Your task to perform on an android device: Go to Yahoo.com Image 0: 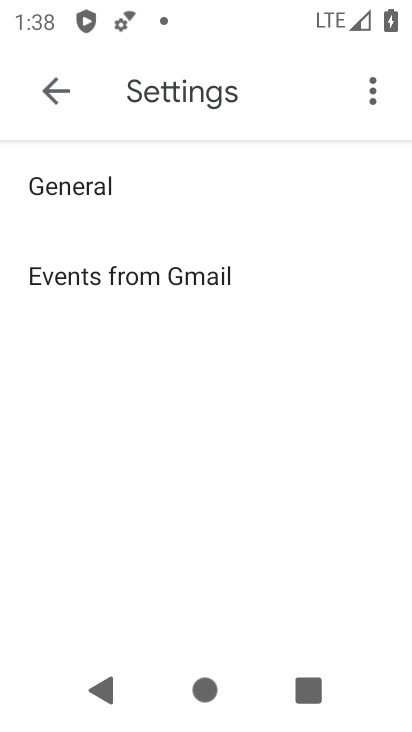
Step 0: drag from (275, 601) to (343, 70)
Your task to perform on an android device: Go to Yahoo.com Image 1: 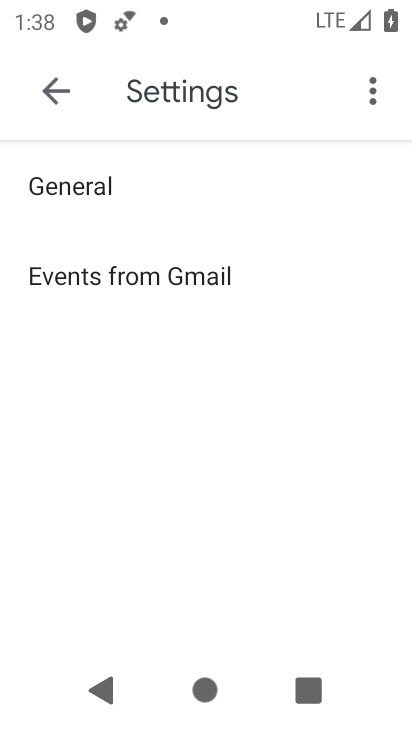
Step 1: press home button
Your task to perform on an android device: Go to Yahoo.com Image 2: 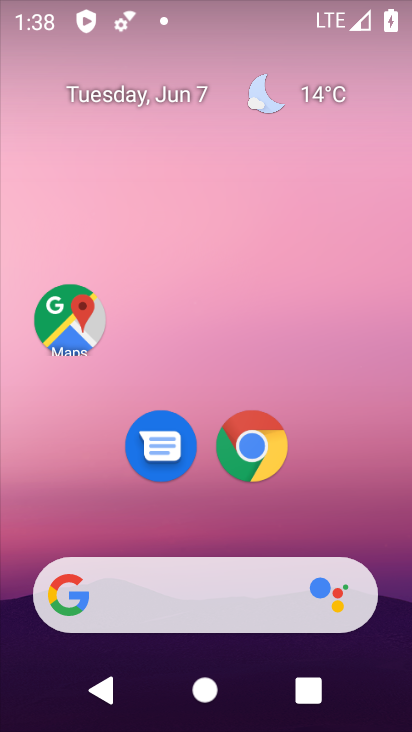
Step 2: click (244, 434)
Your task to perform on an android device: Go to Yahoo.com Image 3: 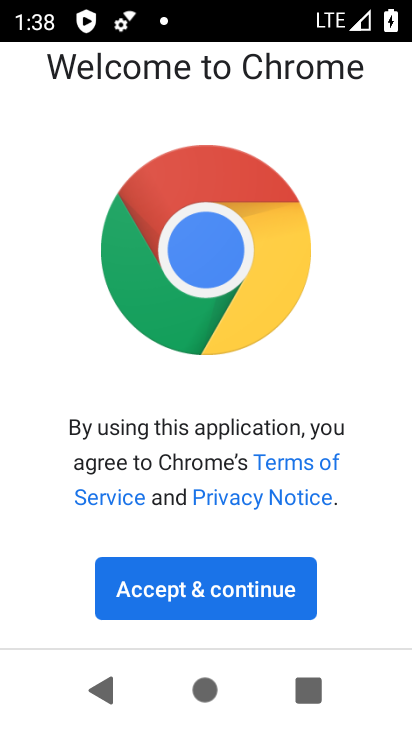
Step 3: click (224, 586)
Your task to perform on an android device: Go to Yahoo.com Image 4: 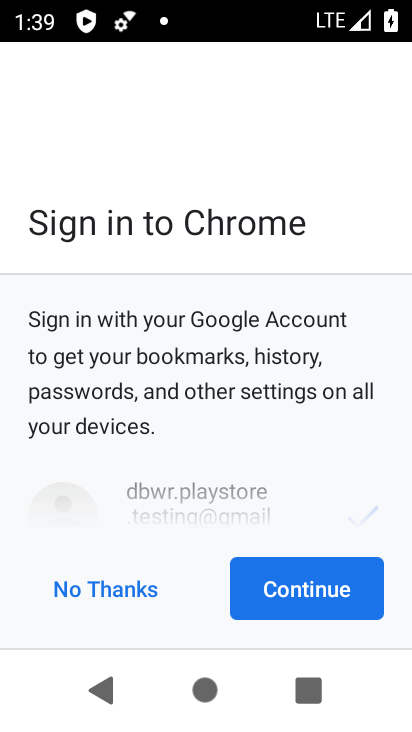
Step 4: click (318, 608)
Your task to perform on an android device: Go to Yahoo.com Image 5: 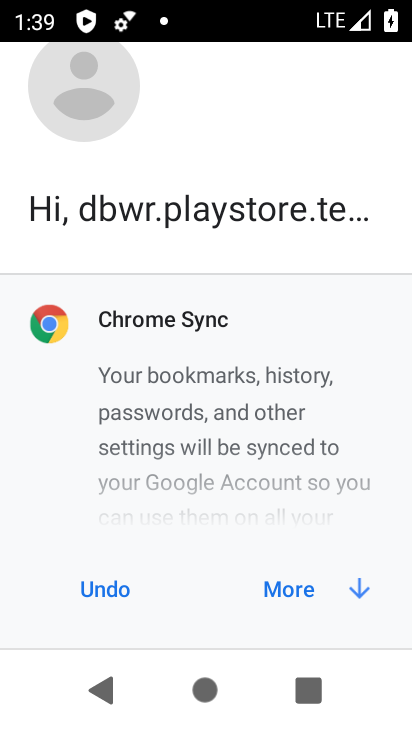
Step 5: click (350, 592)
Your task to perform on an android device: Go to Yahoo.com Image 6: 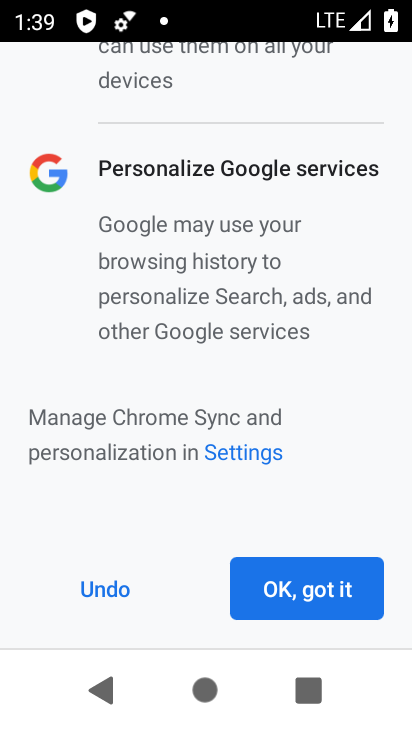
Step 6: click (350, 592)
Your task to perform on an android device: Go to Yahoo.com Image 7: 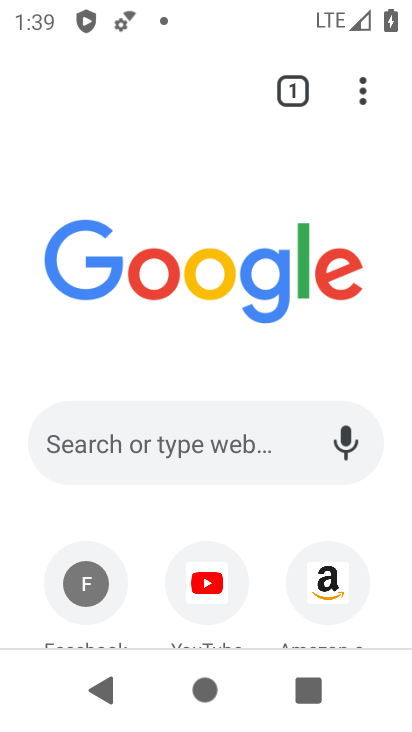
Step 7: click (270, 461)
Your task to perform on an android device: Go to Yahoo.com Image 8: 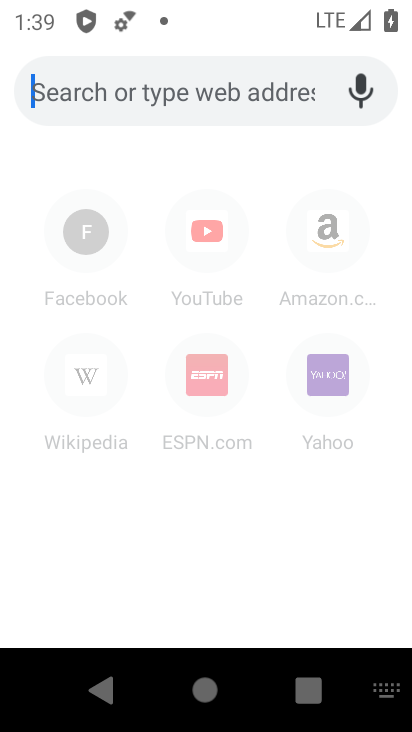
Step 8: click (323, 381)
Your task to perform on an android device: Go to Yahoo.com Image 9: 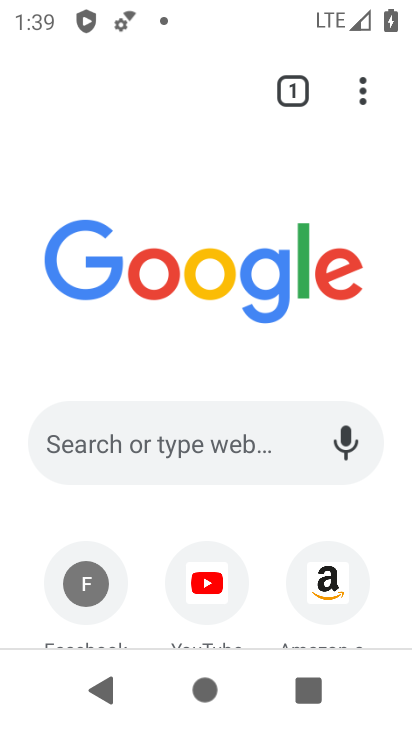
Step 9: drag from (277, 532) to (359, 116)
Your task to perform on an android device: Go to Yahoo.com Image 10: 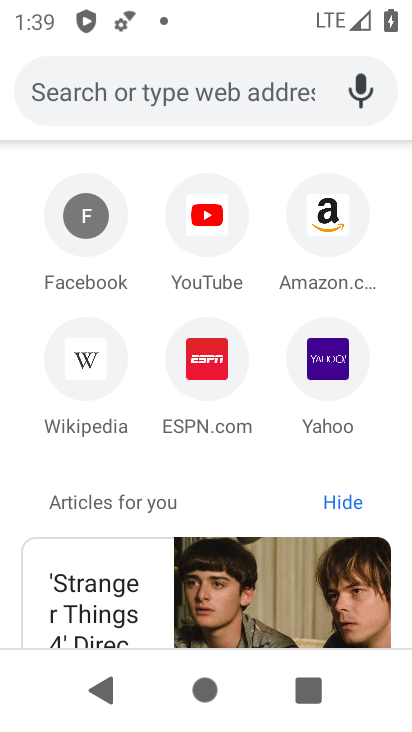
Step 10: click (345, 363)
Your task to perform on an android device: Go to Yahoo.com Image 11: 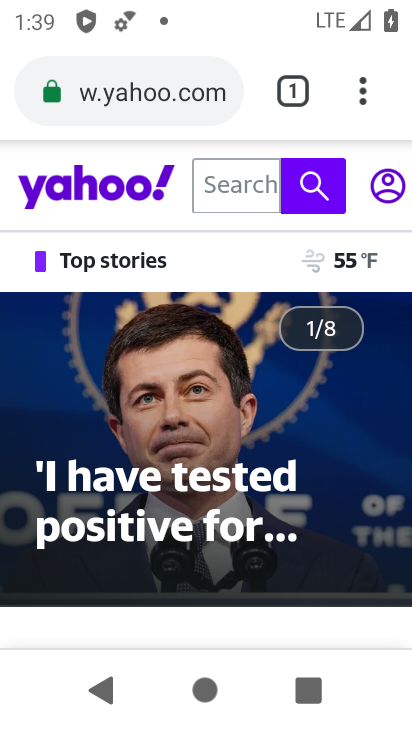
Step 11: task complete